Your task to perform on an android device: turn off sleep mode Image 0: 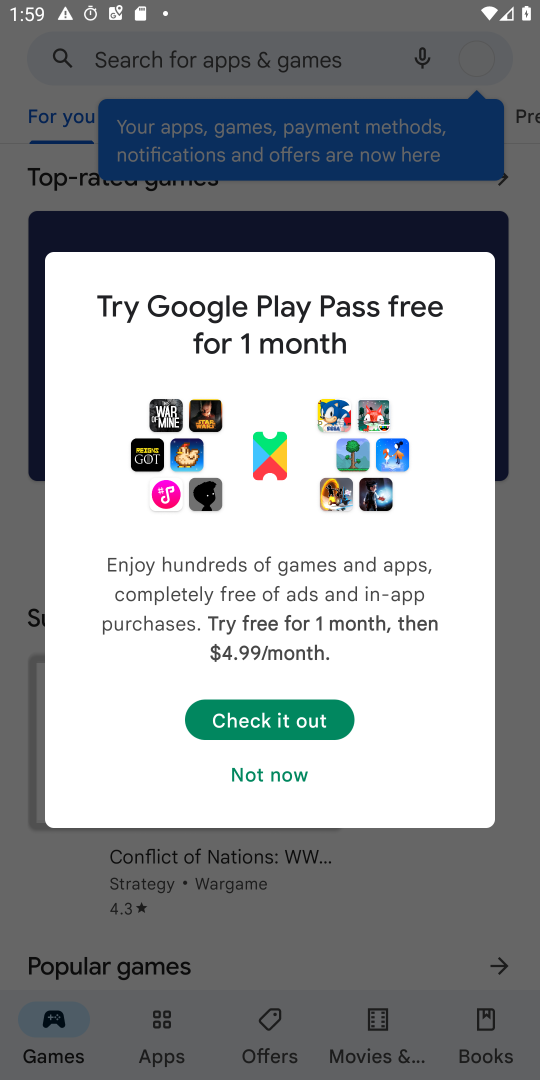
Step 0: press home button
Your task to perform on an android device: turn off sleep mode Image 1: 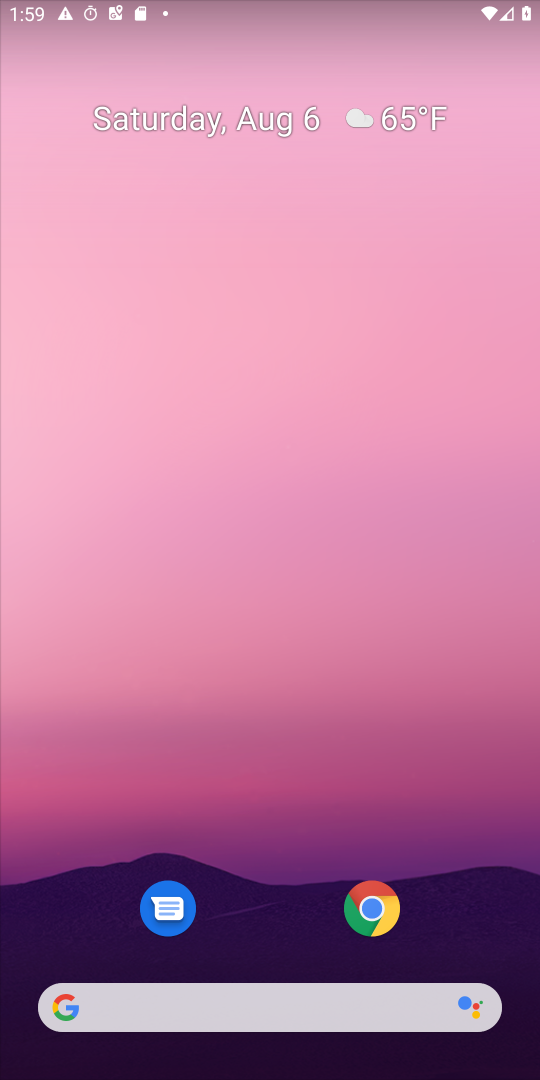
Step 1: drag from (251, 935) to (251, 212)
Your task to perform on an android device: turn off sleep mode Image 2: 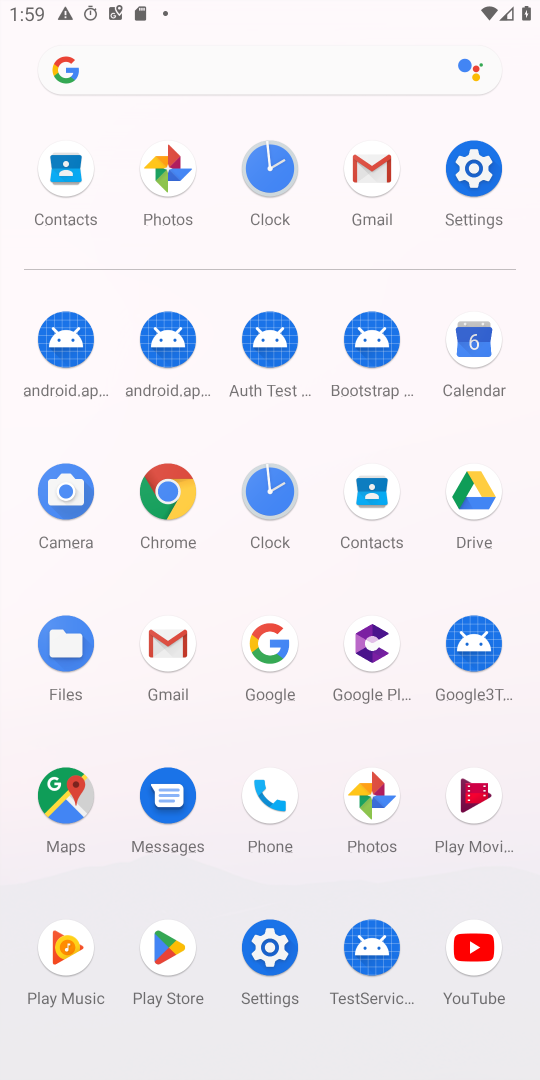
Step 2: click (259, 964)
Your task to perform on an android device: turn off sleep mode Image 3: 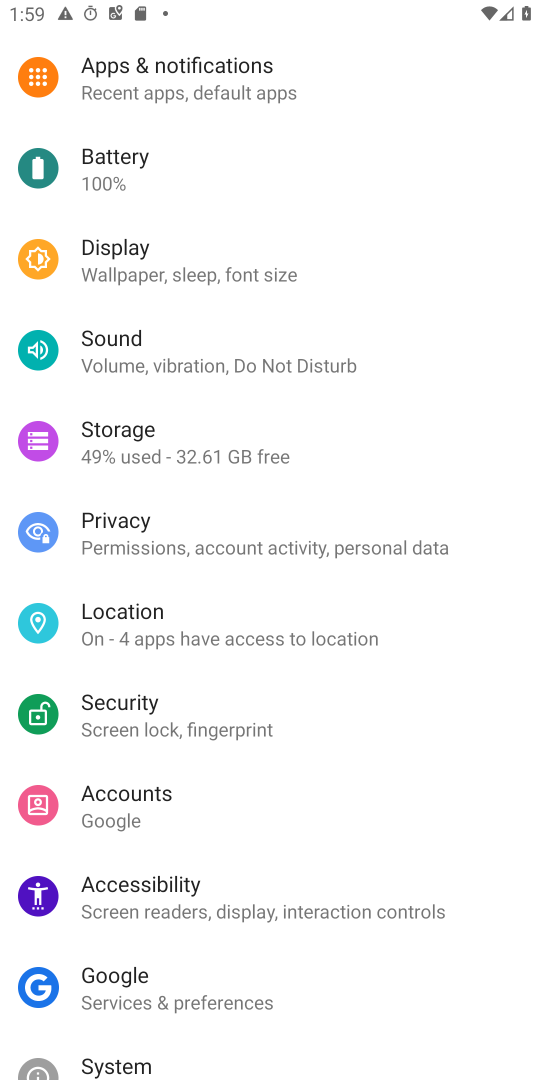
Step 3: click (215, 280)
Your task to perform on an android device: turn off sleep mode Image 4: 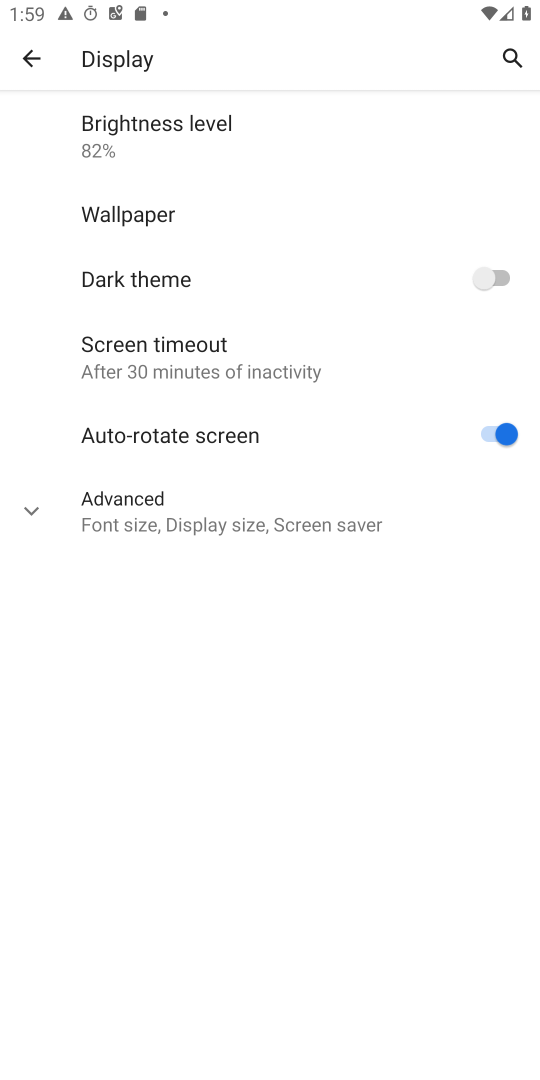
Step 4: click (248, 507)
Your task to perform on an android device: turn off sleep mode Image 5: 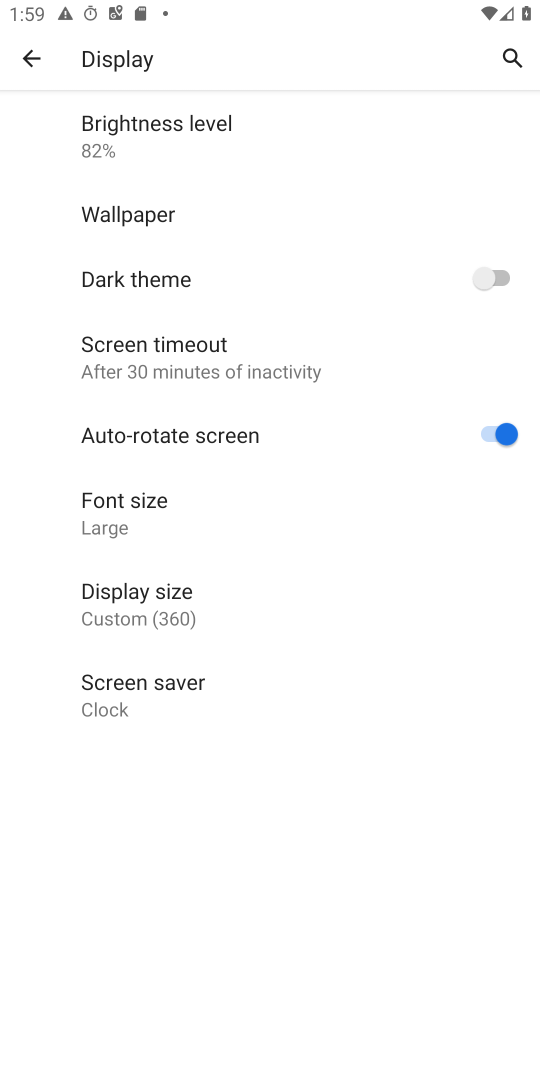
Step 5: task complete